Your task to perform on an android device: Open internet settings Image 0: 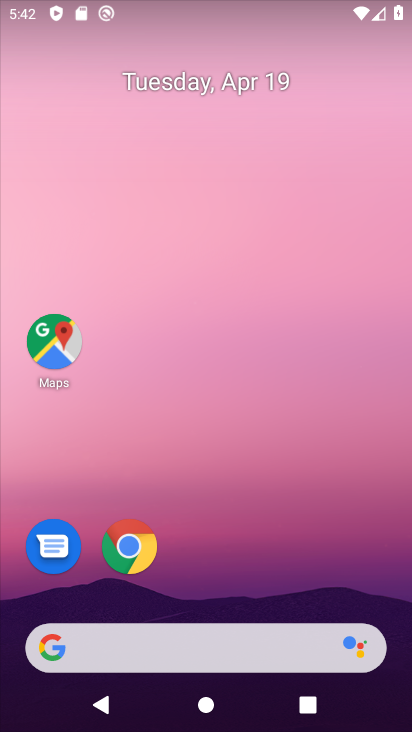
Step 0: drag from (300, 555) to (186, 51)
Your task to perform on an android device: Open internet settings Image 1: 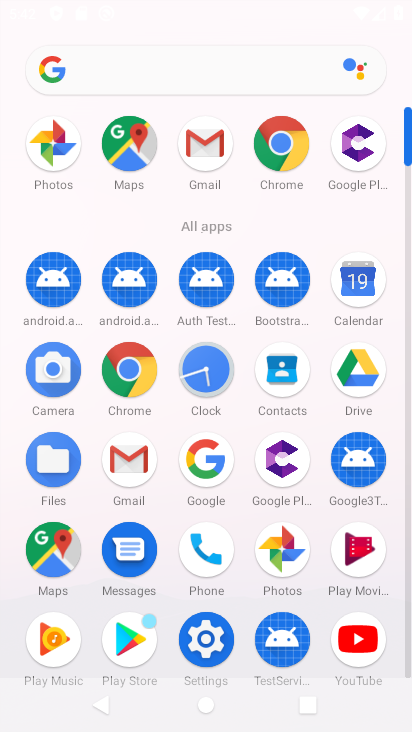
Step 1: drag from (244, 601) to (246, 317)
Your task to perform on an android device: Open internet settings Image 2: 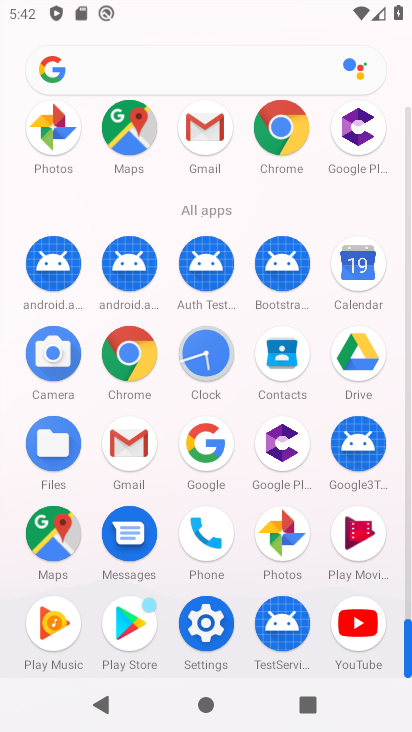
Step 2: click (206, 615)
Your task to perform on an android device: Open internet settings Image 3: 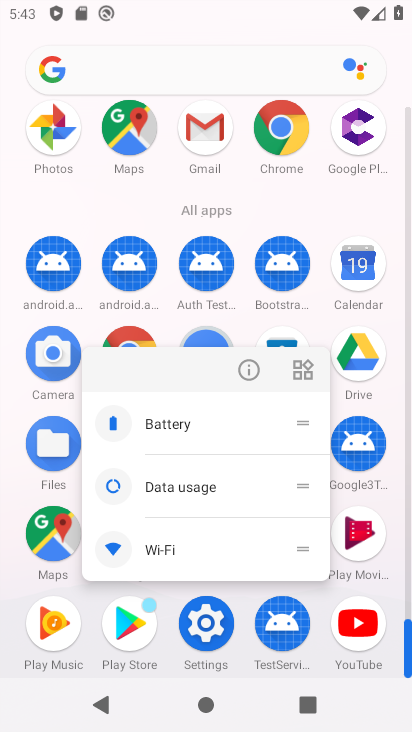
Step 3: click (208, 621)
Your task to perform on an android device: Open internet settings Image 4: 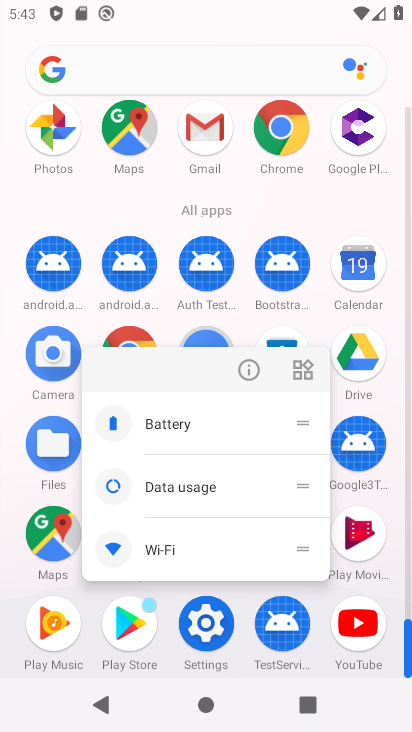
Step 4: click (232, 646)
Your task to perform on an android device: Open internet settings Image 5: 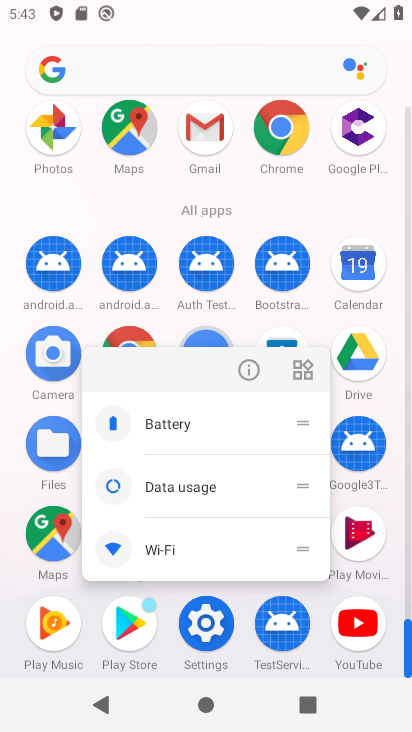
Step 5: click (218, 629)
Your task to perform on an android device: Open internet settings Image 6: 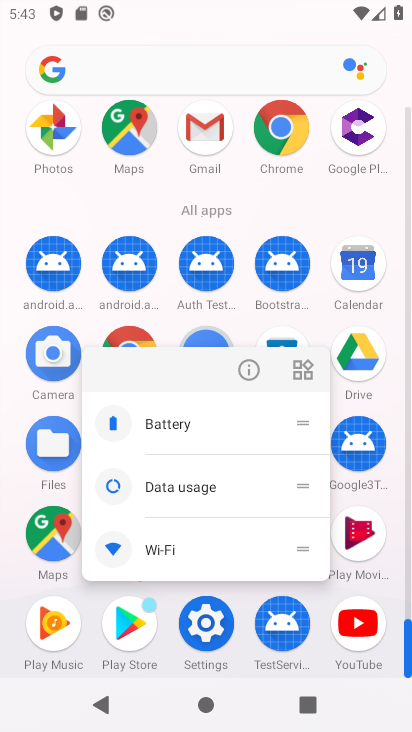
Step 6: click (215, 627)
Your task to perform on an android device: Open internet settings Image 7: 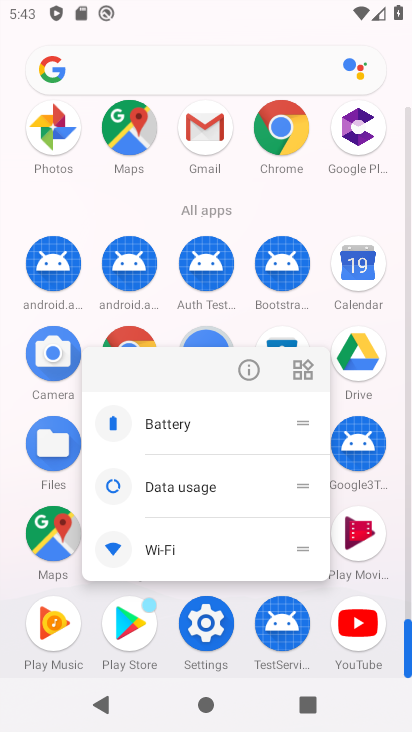
Step 7: click (207, 625)
Your task to perform on an android device: Open internet settings Image 8: 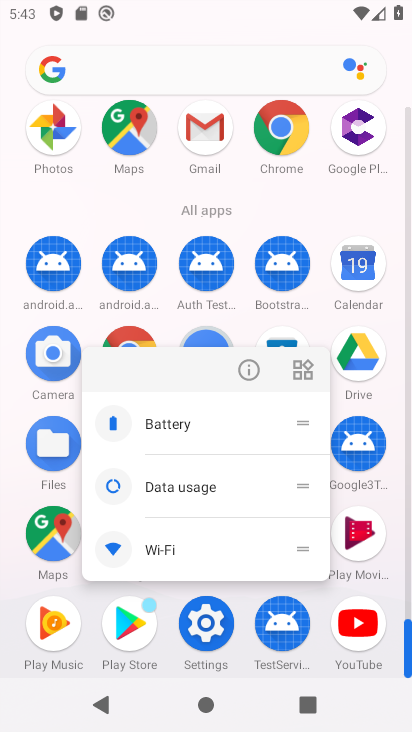
Step 8: click (206, 624)
Your task to perform on an android device: Open internet settings Image 9: 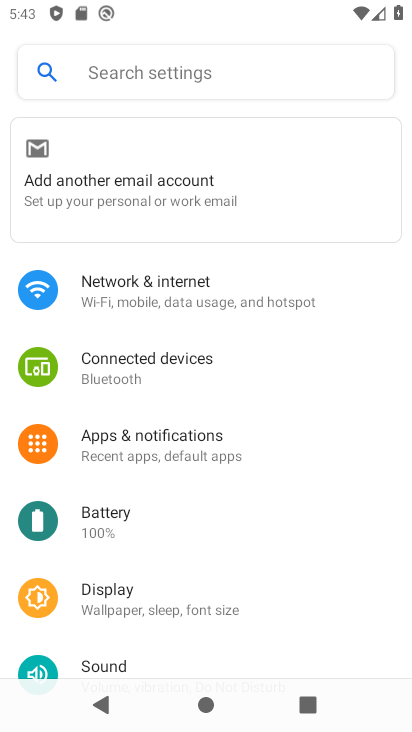
Step 9: click (175, 301)
Your task to perform on an android device: Open internet settings Image 10: 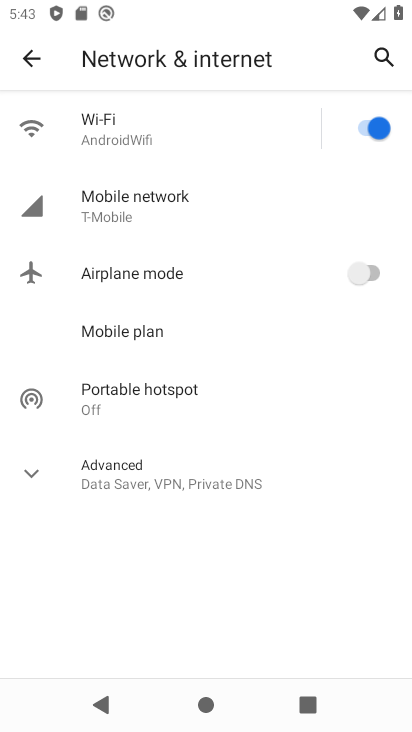
Step 10: click (127, 455)
Your task to perform on an android device: Open internet settings Image 11: 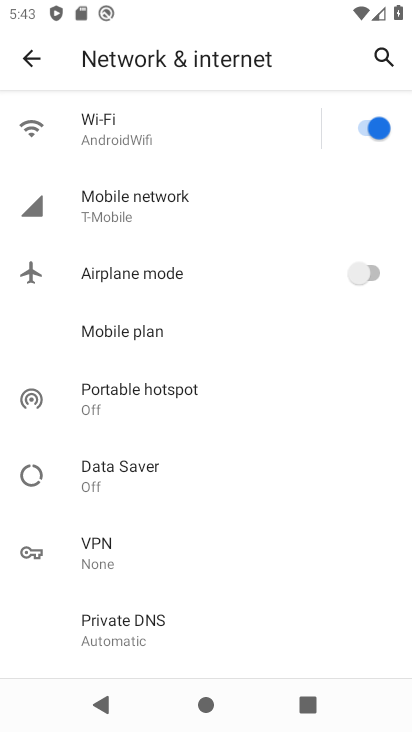
Step 11: task complete